Your task to perform on an android device: Empty the shopping cart on bestbuy.com. Add "bose soundsport free" to the cart on bestbuy.com Image 0: 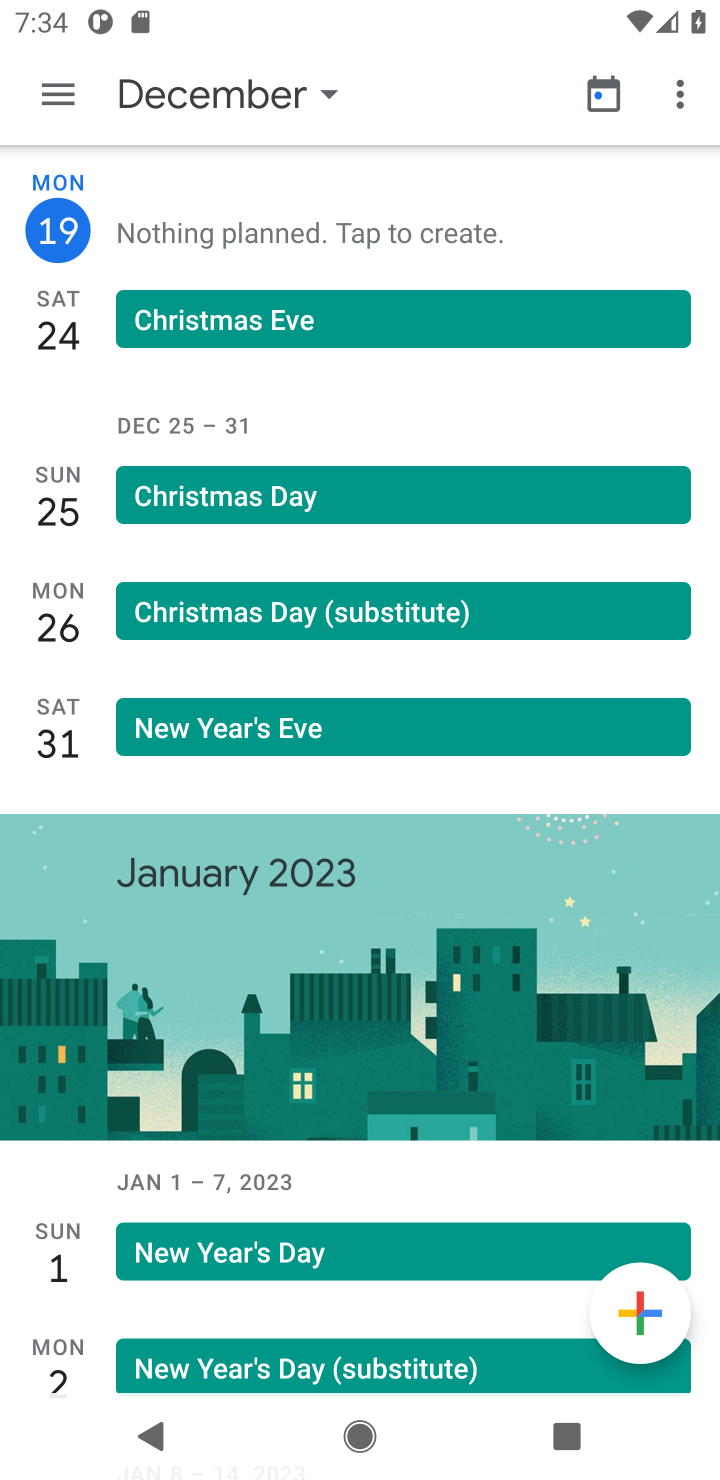
Step 0: press home button
Your task to perform on an android device: Empty the shopping cart on bestbuy.com. Add "bose soundsport free" to the cart on bestbuy.com Image 1: 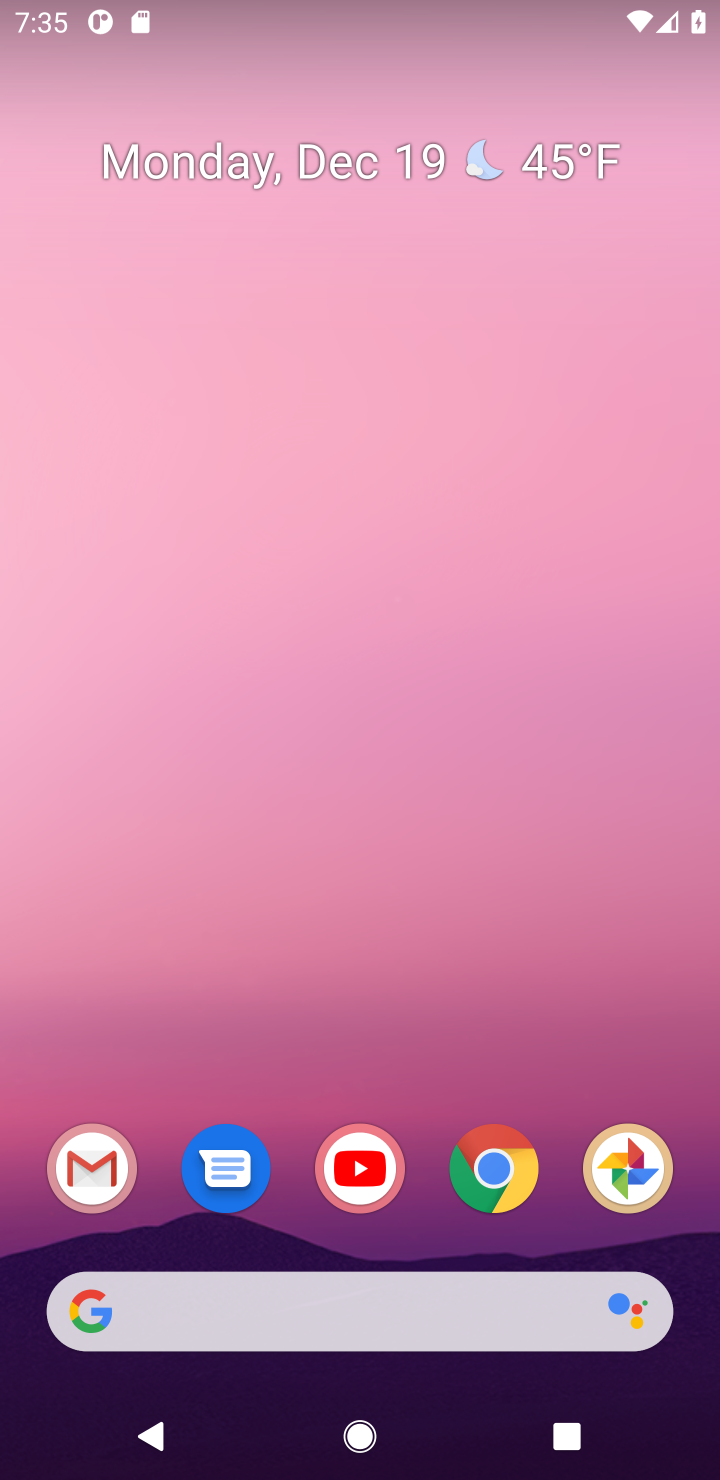
Step 1: click (494, 1186)
Your task to perform on an android device: Empty the shopping cart on bestbuy.com. Add "bose soundsport free" to the cart on bestbuy.com Image 2: 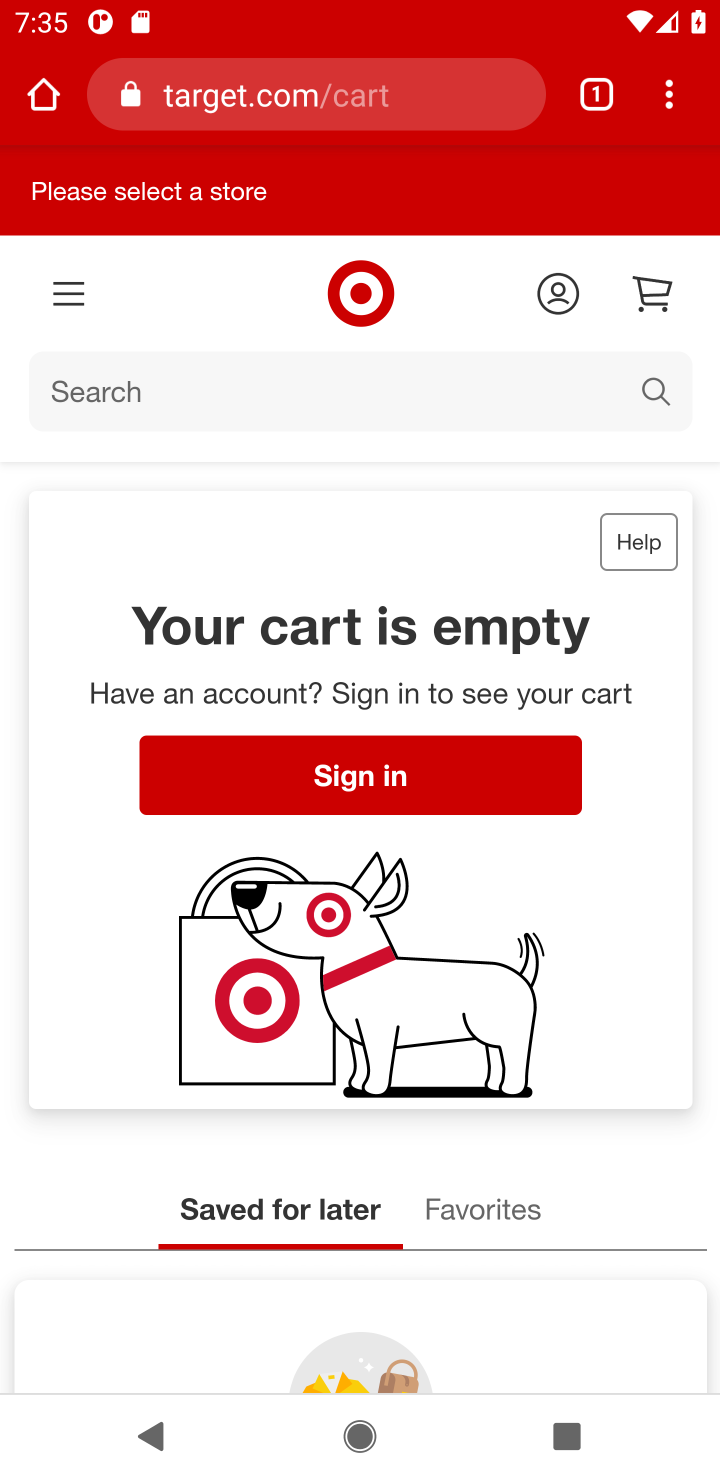
Step 2: click (261, 86)
Your task to perform on an android device: Empty the shopping cart on bestbuy.com. Add "bose soundsport free" to the cart on bestbuy.com Image 3: 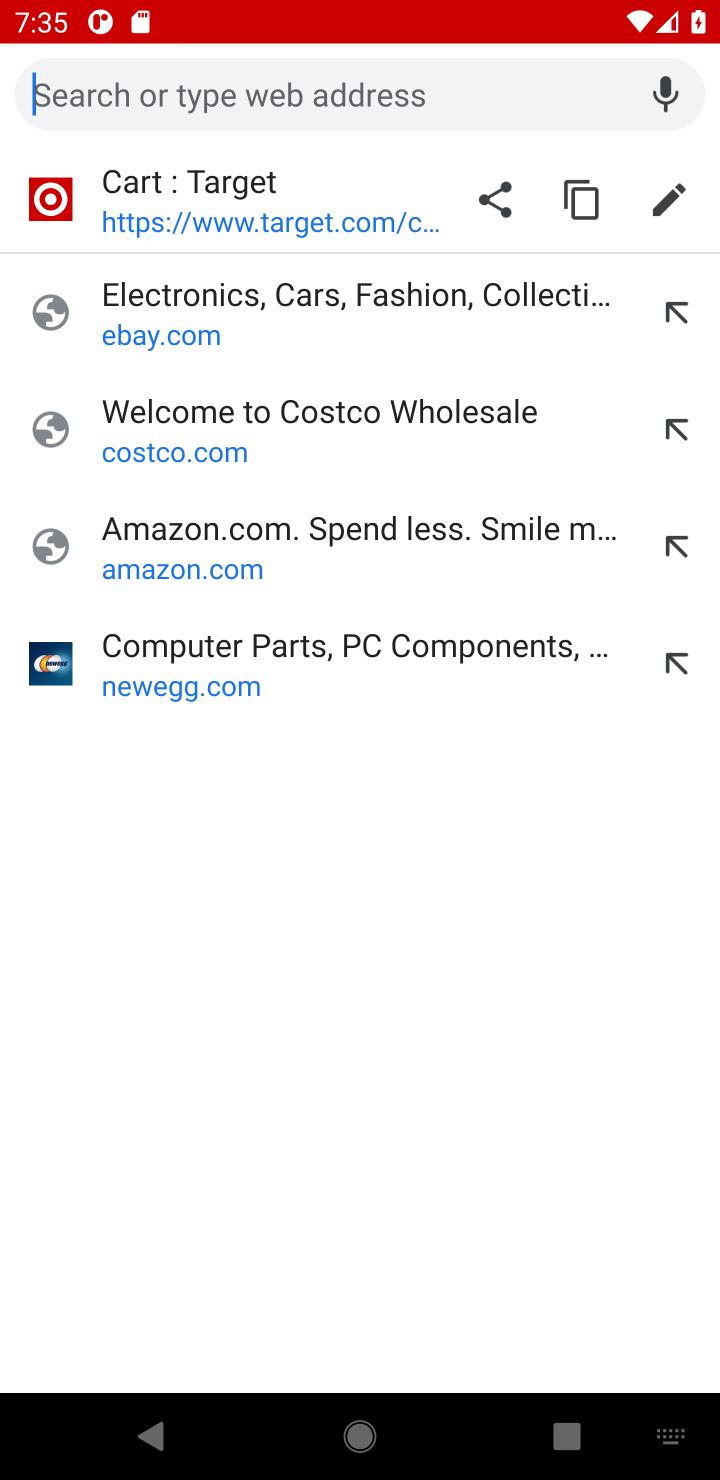
Step 3: type "bestbuy.com"
Your task to perform on an android device: Empty the shopping cart on bestbuy.com. Add "bose soundsport free" to the cart on bestbuy.com Image 4: 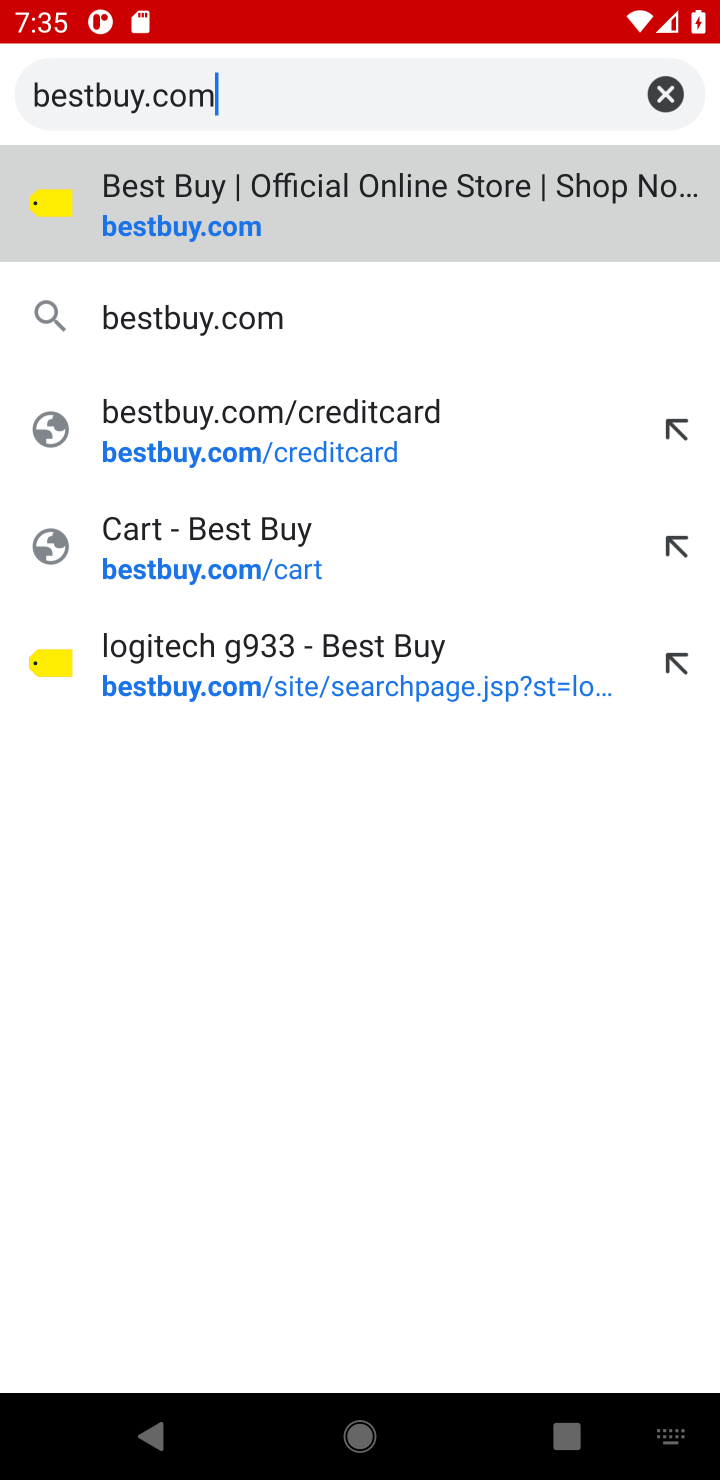
Step 4: click (157, 222)
Your task to perform on an android device: Empty the shopping cart on bestbuy.com. Add "bose soundsport free" to the cart on bestbuy.com Image 5: 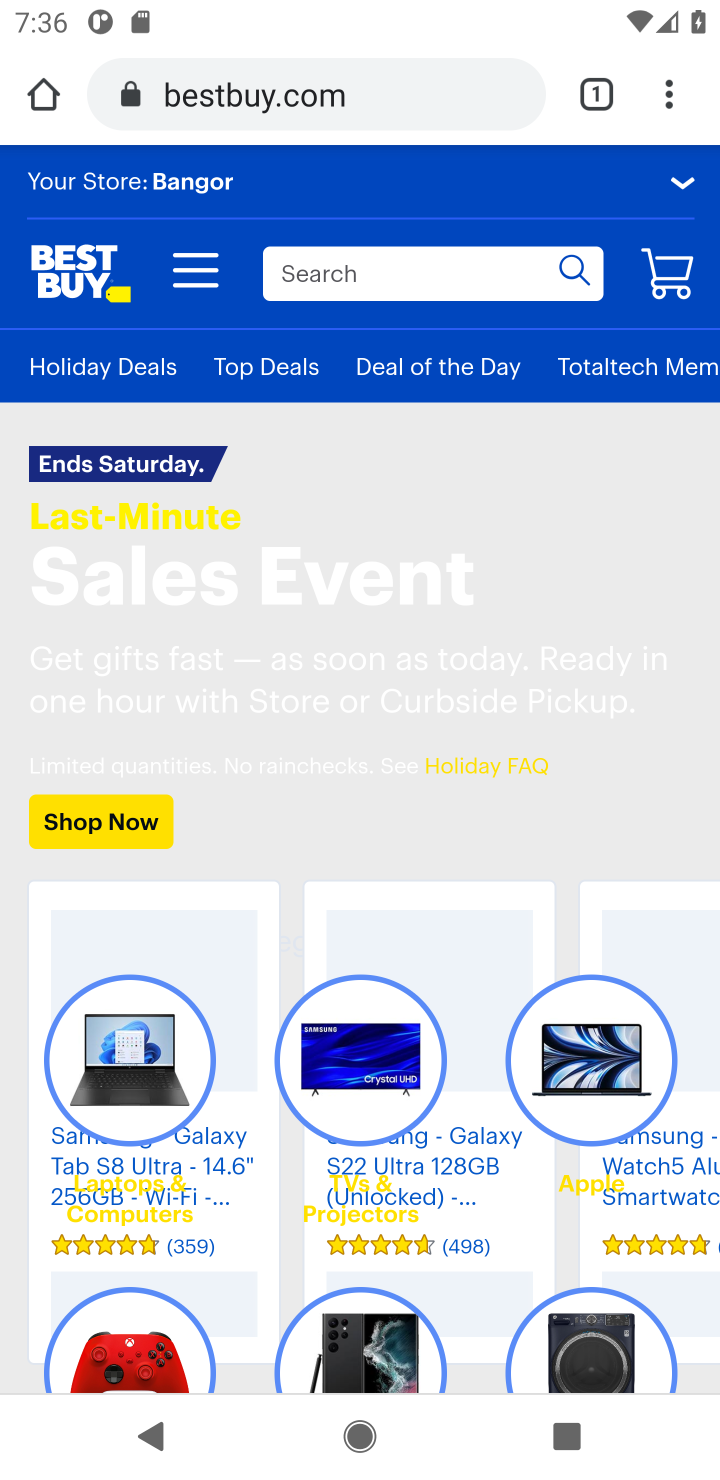
Step 5: click (668, 266)
Your task to perform on an android device: Empty the shopping cart on bestbuy.com. Add "bose soundsport free" to the cart on bestbuy.com Image 6: 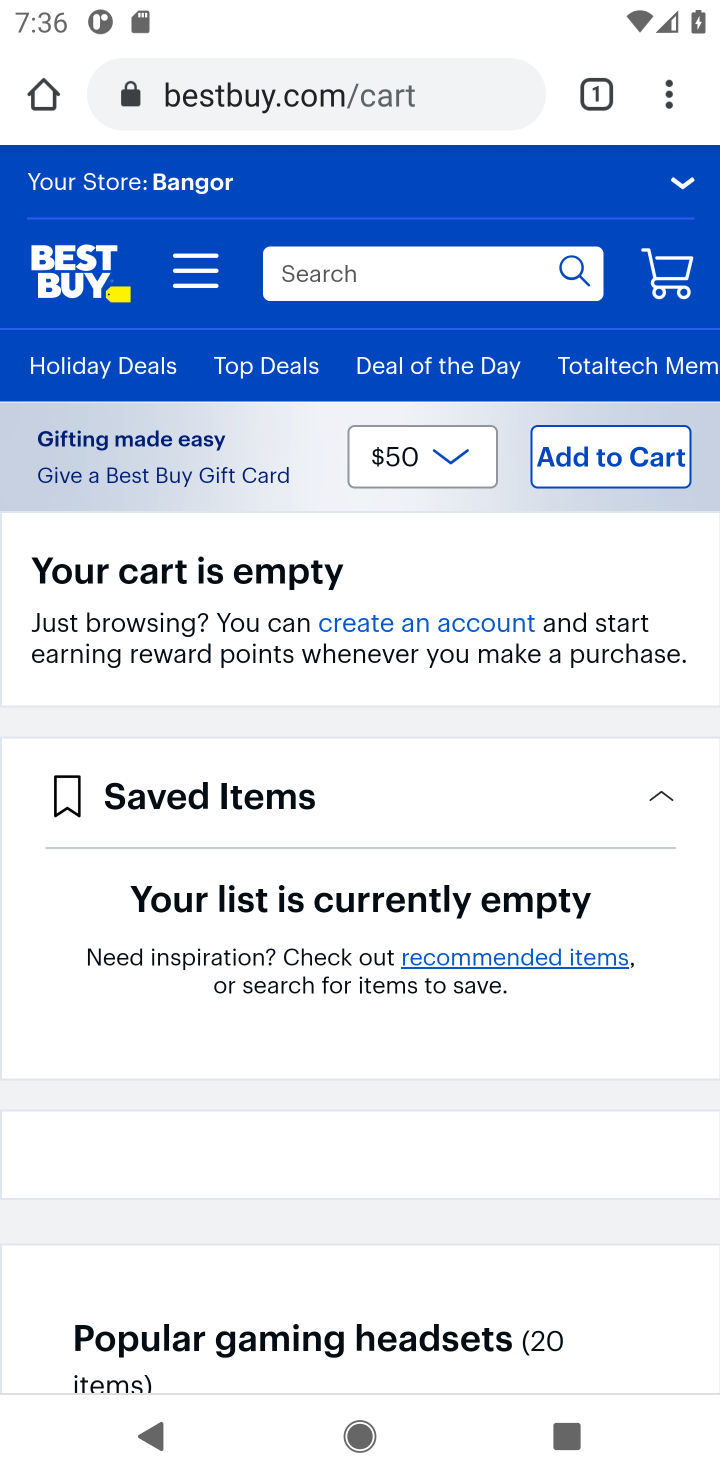
Step 6: click (371, 268)
Your task to perform on an android device: Empty the shopping cart on bestbuy.com. Add "bose soundsport free" to the cart on bestbuy.com Image 7: 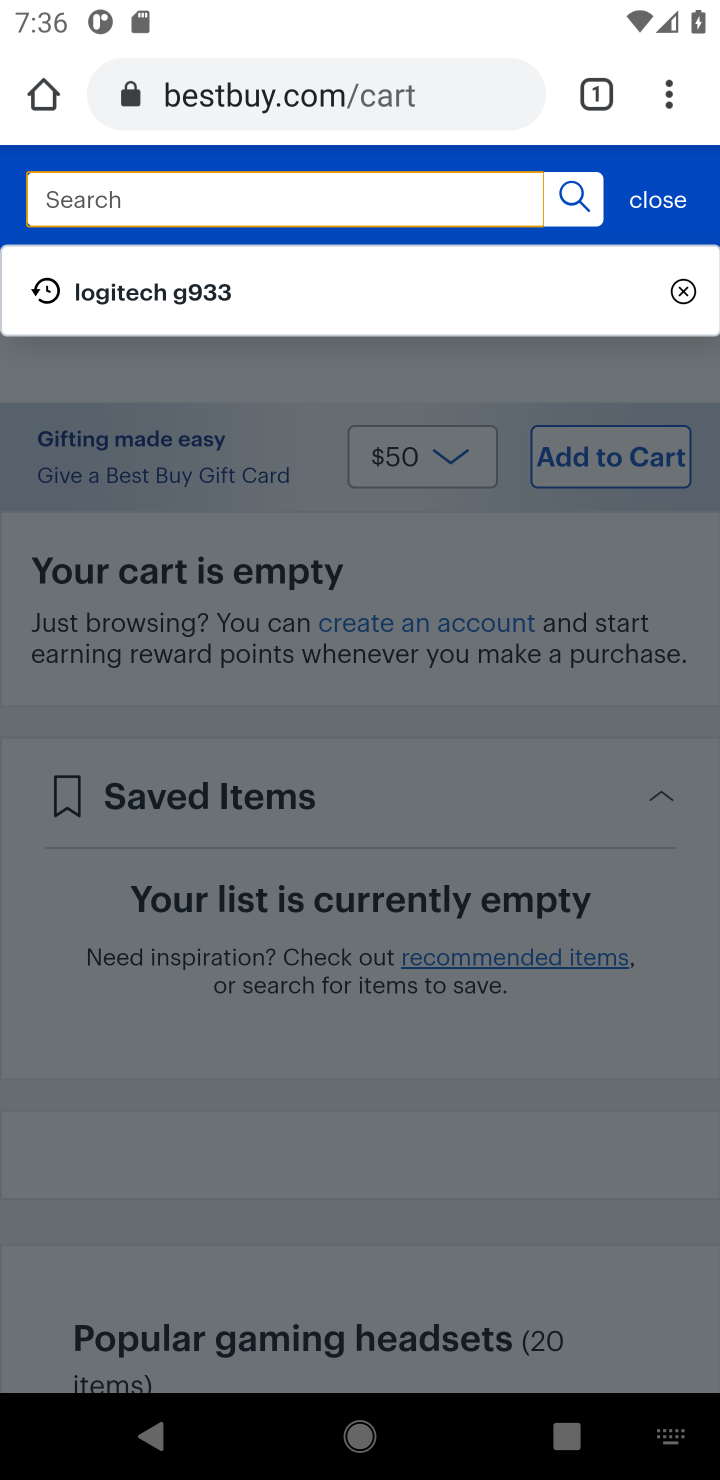
Step 7: type "bose soundsport free"
Your task to perform on an android device: Empty the shopping cart on bestbuy.com. Add "bose soundsport free" to the cart on bestbuy.com Image 8: 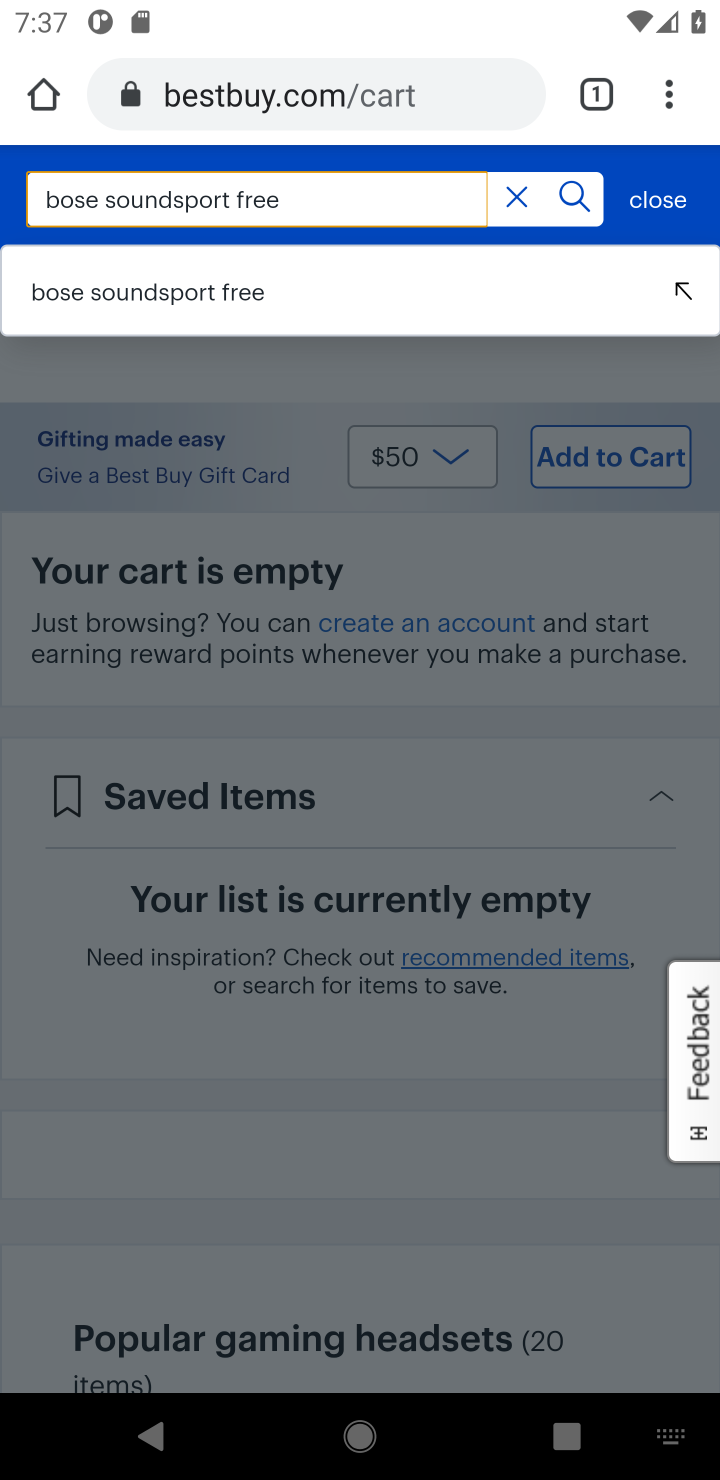
Step 8: click (242, 302)
Your task to perform on an android device: Empty the shopping cart on bestbuy.com. Add "bose soundsport free" to the cart on bestbuy.com Image 9: 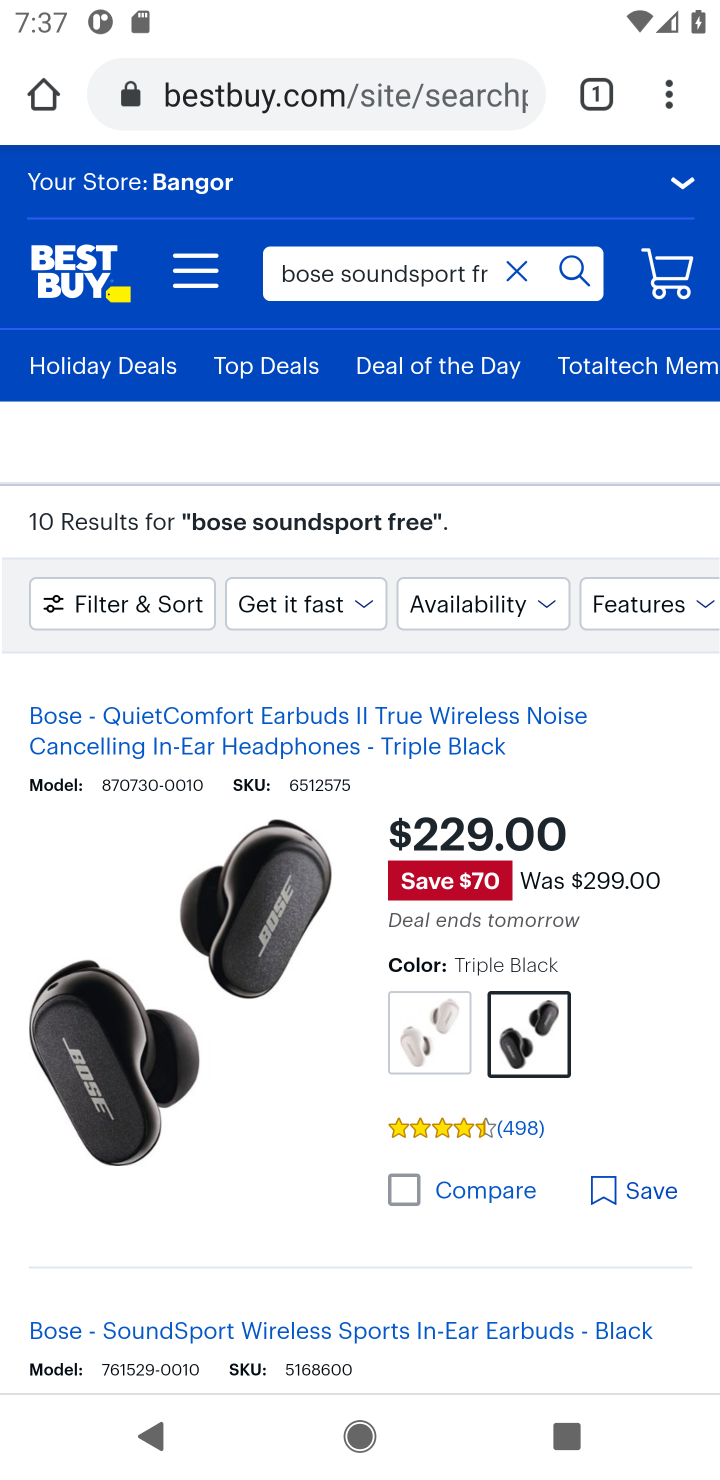
Step 9: drag from (237, 904) to (245, 353)
Your task to perform on an android device: Empty the shopping cart on bestbuy.com. Add "bose soundsport free" to the cart on bestbuy.com Image 10: 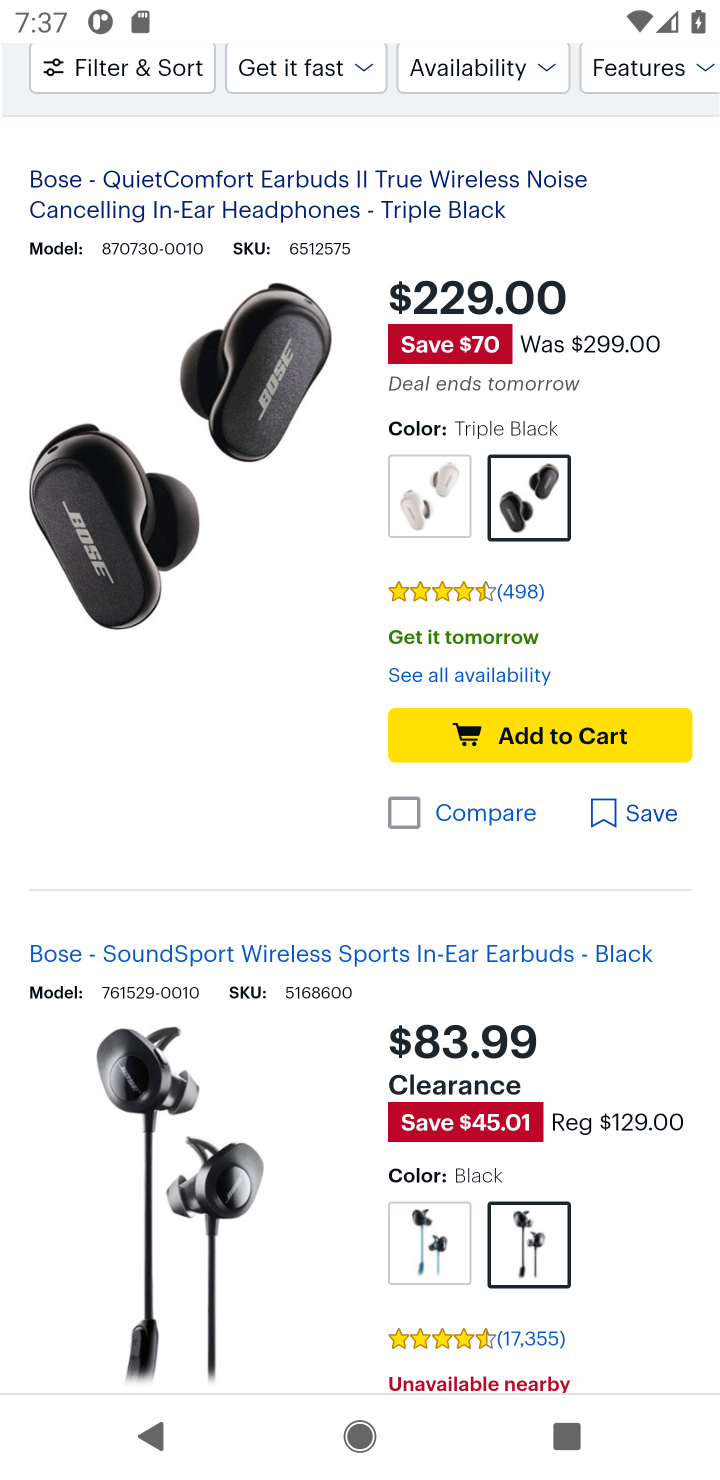
Step 10: drag from (231, 926) to (230, 500)
Your task to perform on an android device: Empty the shopping cart on bestbuy.com. Add "bose soundsport free" to the cart on bestbuy.com Image 11: 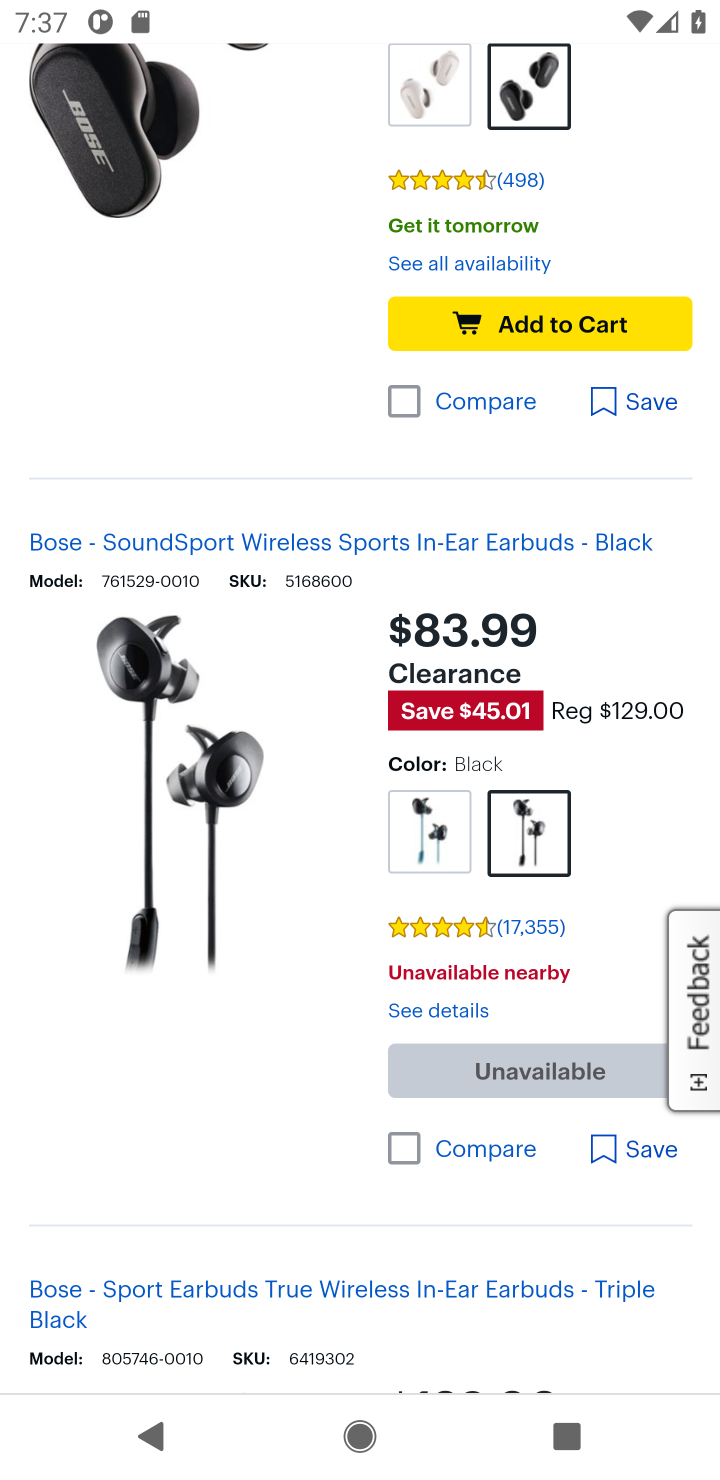
Step 11: drag from (195, 978) to (240, 376)
Your task to perform on an android device: Empty the shopping cart on bestbuy.com. Add "bose soundsport free" to the cart on bestbuy.com Image 12: 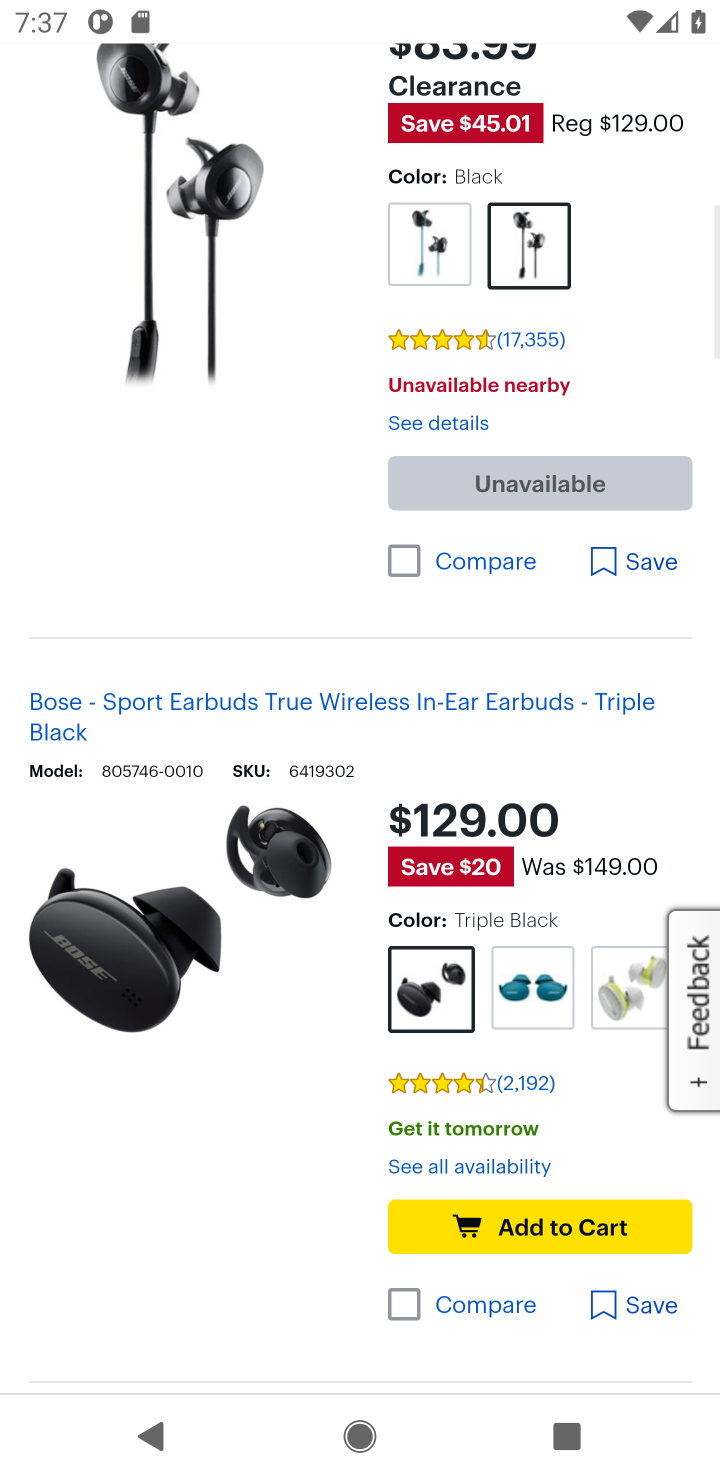
Step 12: drag from (272, 1113) to (293, 320)
Your task to perform on an android device: Empty the shopping cart on bestbuy.com. Add "bose soundsport free" to the cart on bestbuy.com Image 13: 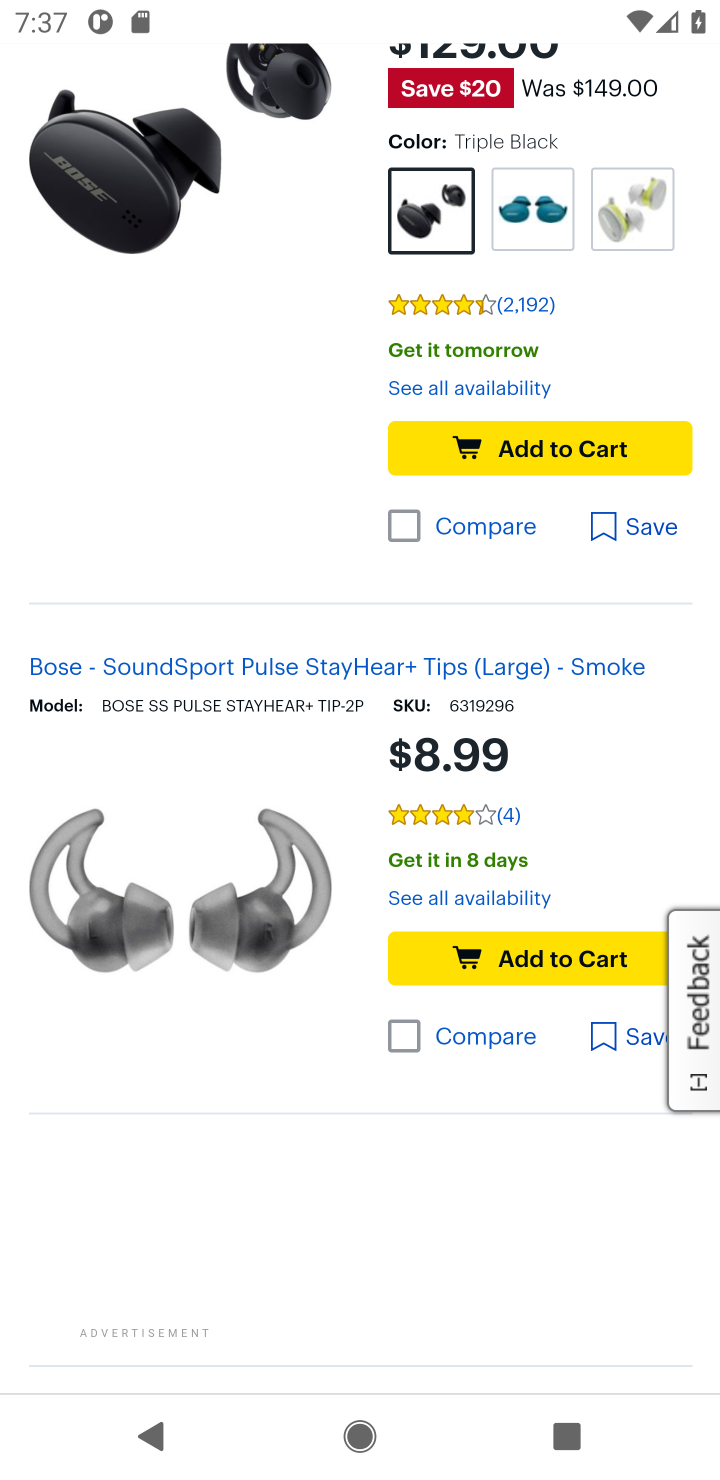
Step 13: drag from (244, 957) to (266, 303)
Your task to perform on an android device: Empty the shopping cart on bestbuy.com. Add "bose soundsport free" to the cart on bestbuy.com Image 14: 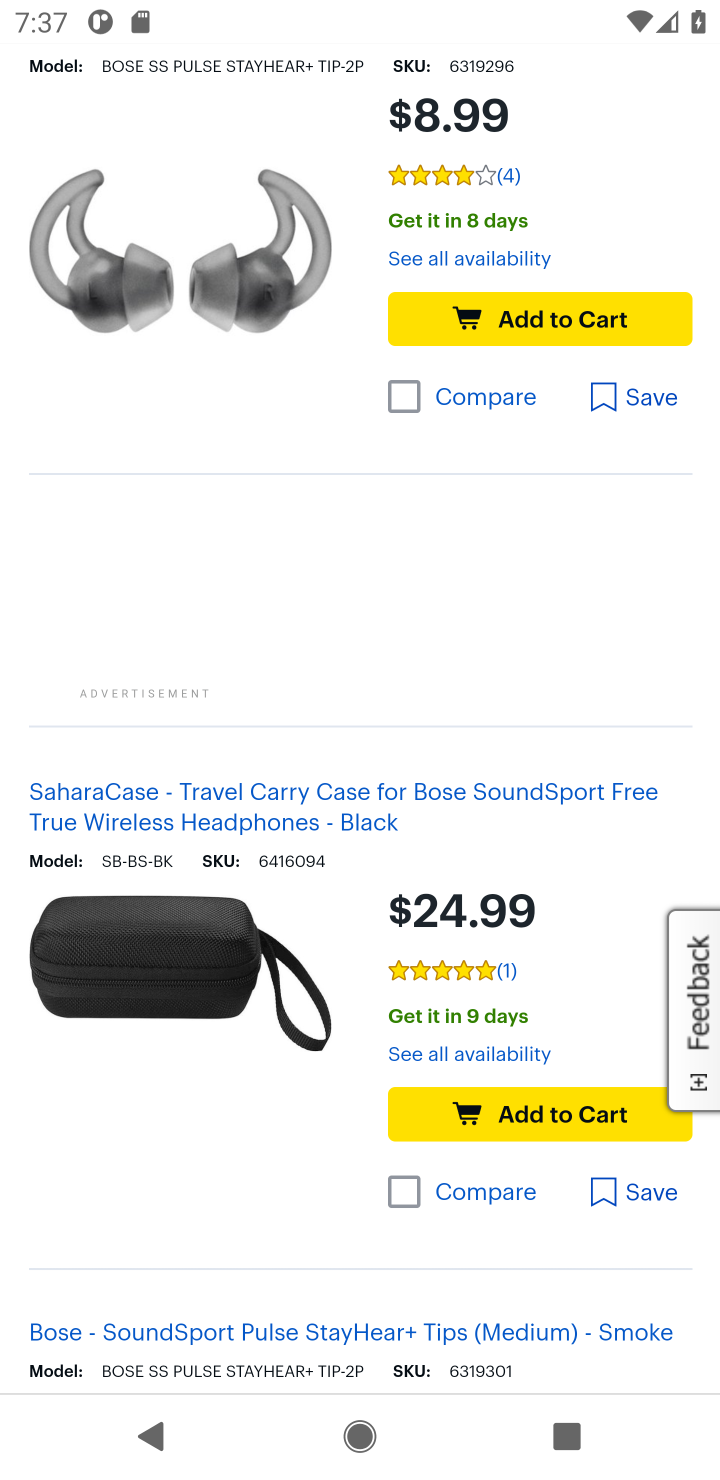
Step 14: drag from (195, 1006) to (237, 507)
Your task to perform on an android device: Empty the shopping cart on bestbuy.com. Add "bose soundsport free" to the cart on bestbuy.com Image 15: 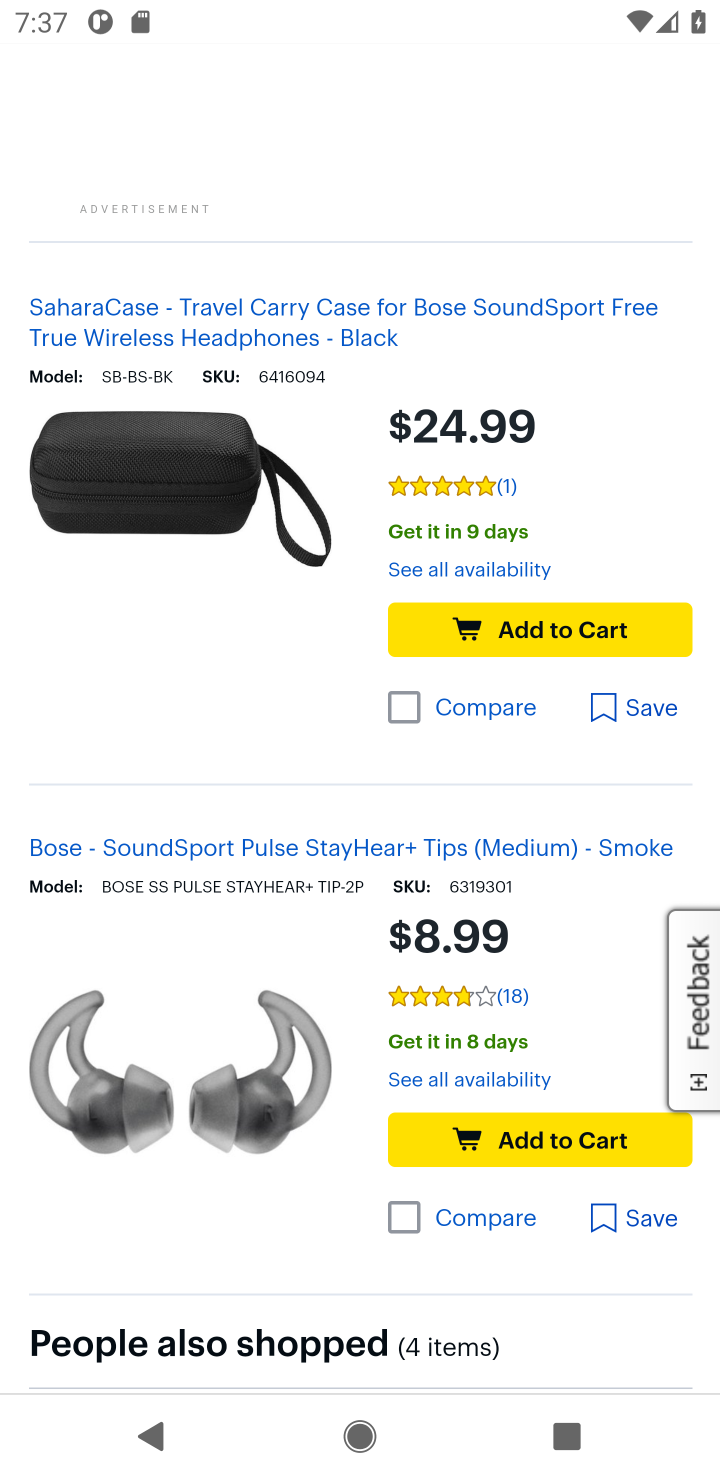
Step 15: click (524, 623)
Your task to perform on an android device: Empty the shopping cart on bestbuy.com. Add "bose soundsport free" to the cart on bestbuy.com Image 16: 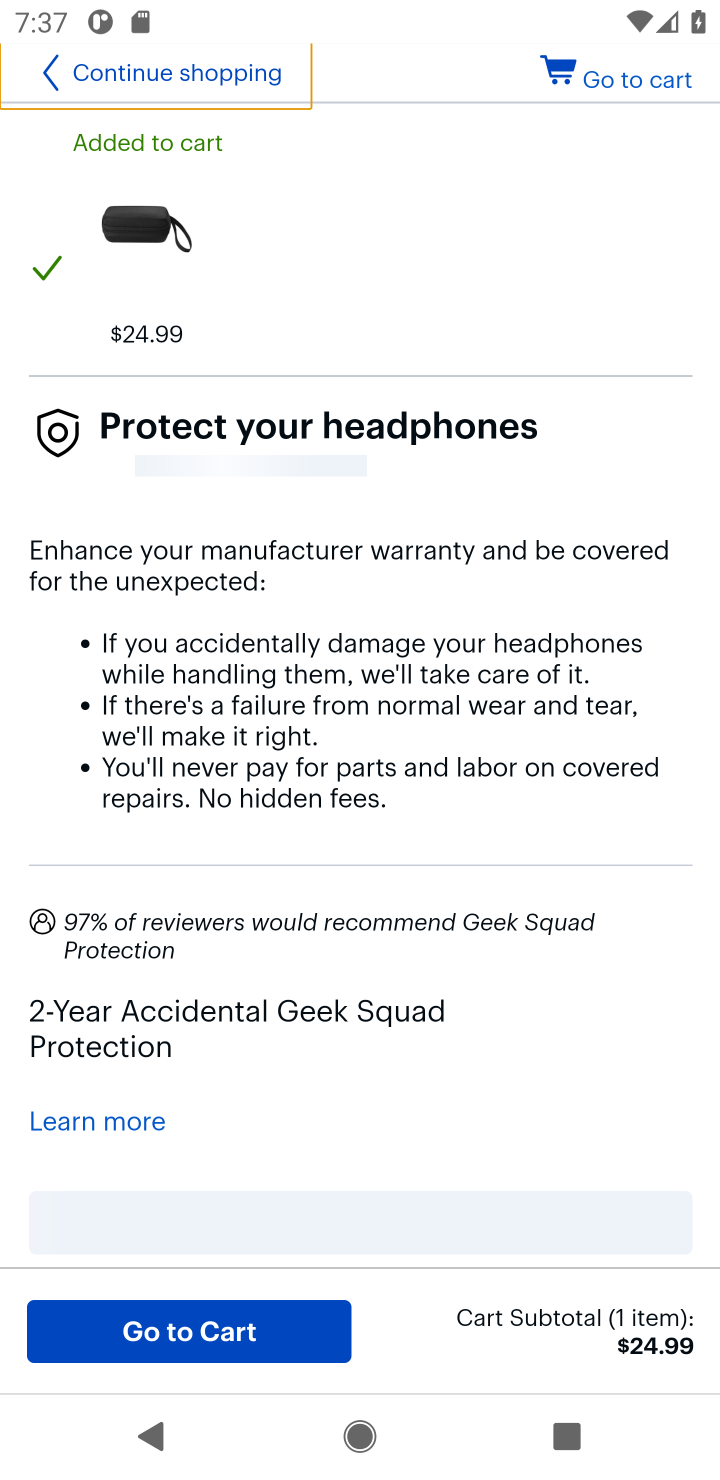
Step 16: task complete